Your task to perform on an android device: Is it going to rain this weekend? Image 0: 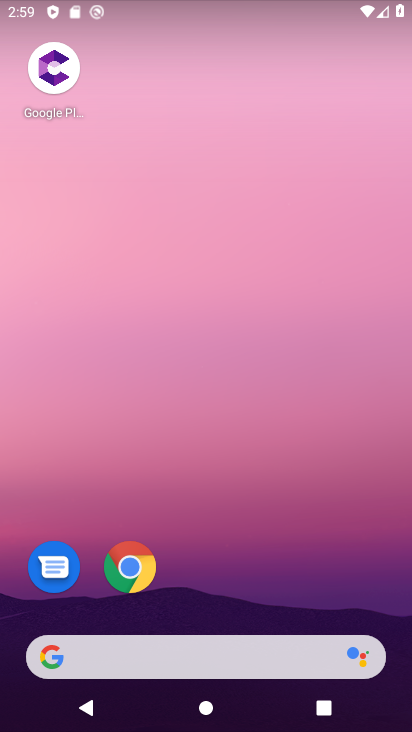
Step 0: click (213, 652)
Your task to perform on an android device: Is it going to rain this weekend? Image 1: 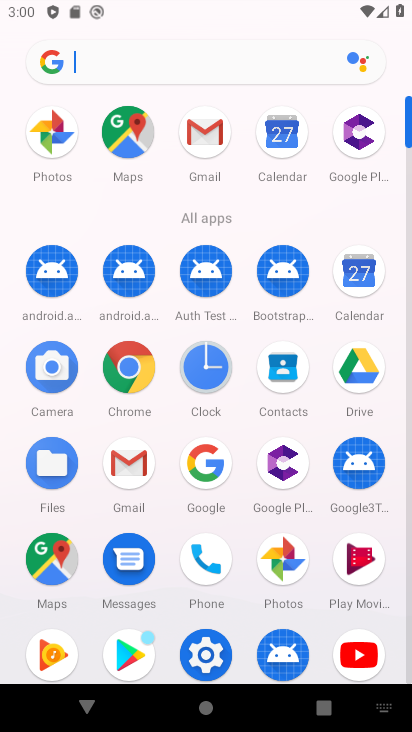
Step 1: click (127, 52)
Your task to perform on an android device: Is it going to rain this weekend? Image 2: 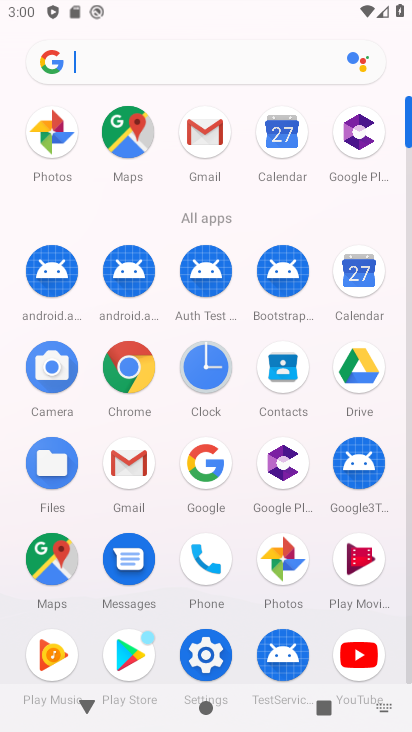
Step 2: click (163, 59)
Your task to perform on an android device: Is it going to rain this weekend? Image 3: 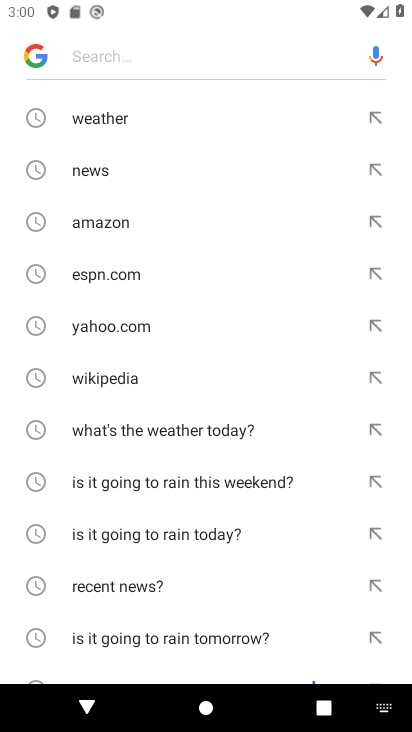
Step 3: click (124, 107)
Your task to perform on an android device: Is it going to rain this weekend? Image 4: 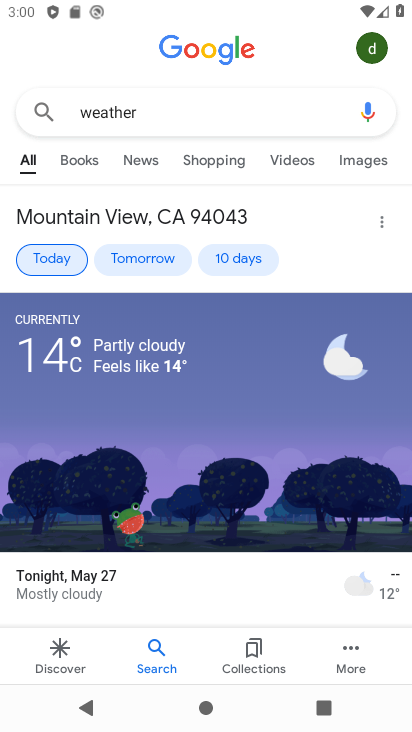
Step 4: drag from (321, 568) to (284, 366)
Your task to perform on an android device: Is it going to rain this weekend? Image 5: 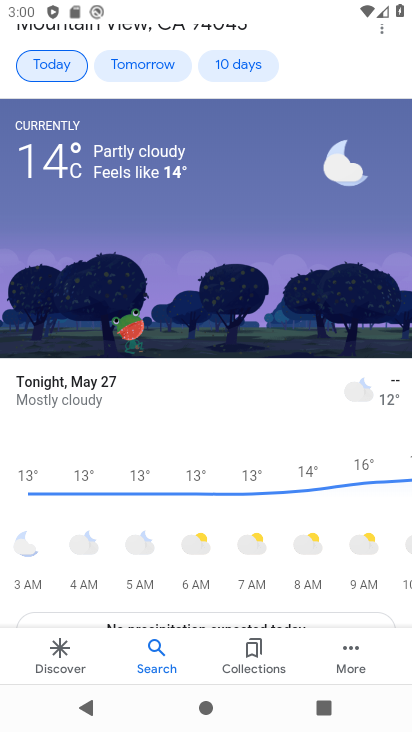
Step 5: click (237, 66)
Your task to perform on an android device: Is it going to rain this weekend? Image 6: 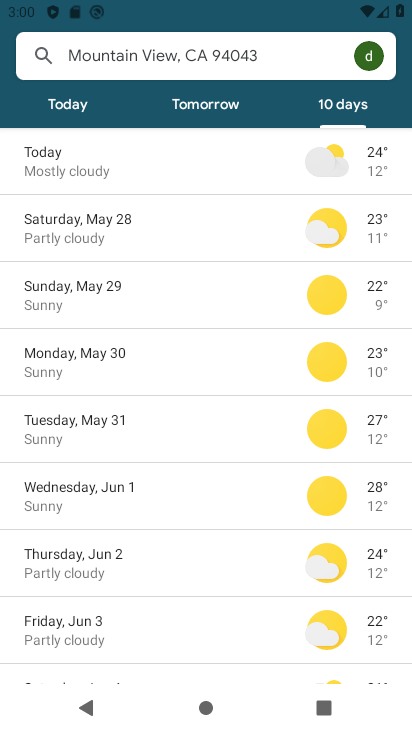
Step 6: task complete